Your task to perform on an android device: Go to Google maps Image 0: 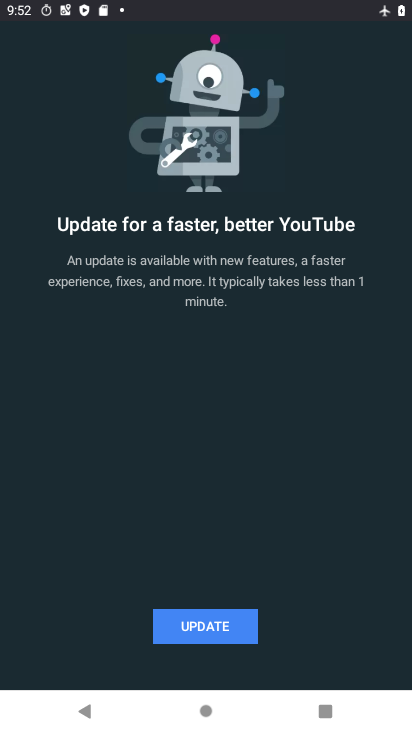
Step 0: press home button
Your task to perform on an android device: Go to Google maps Image 1: 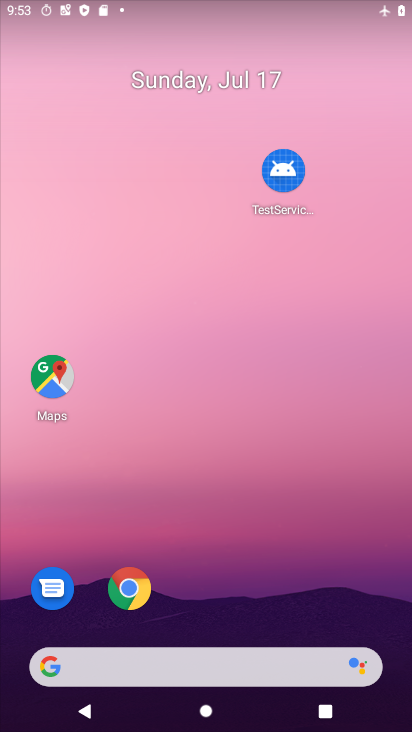
Step 1: drag from (245, 674) to (338, 249)
Your task to perform on an android device: Go to Google maps Image 2: 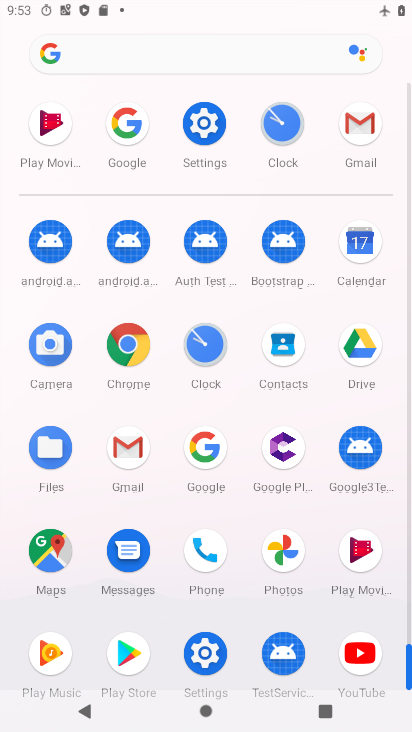
Step 2: drag from (192, 498) to (225, 273)
Your task to perform on an android device: Go to Google maps Image 3: 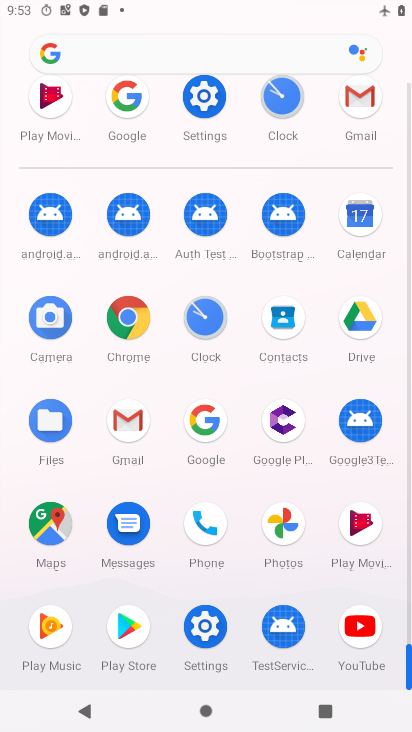
Step 3: click (43, 539)
Your task to perform on an android device: Go to Google maps Image 4: 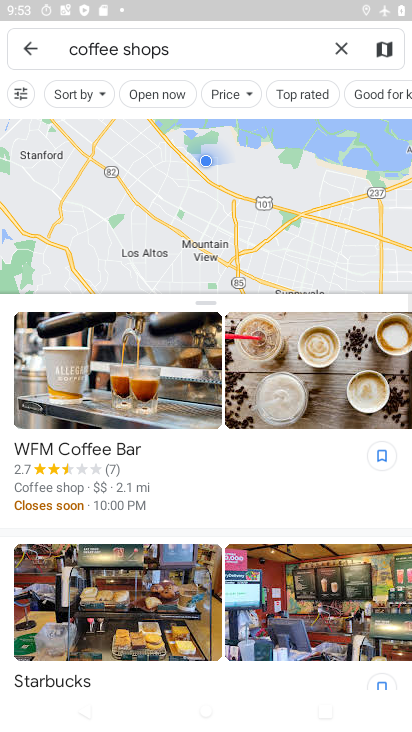
Step 4: task complete